Your task to perform on an android device: Find coffee shops on Maps Image 0: 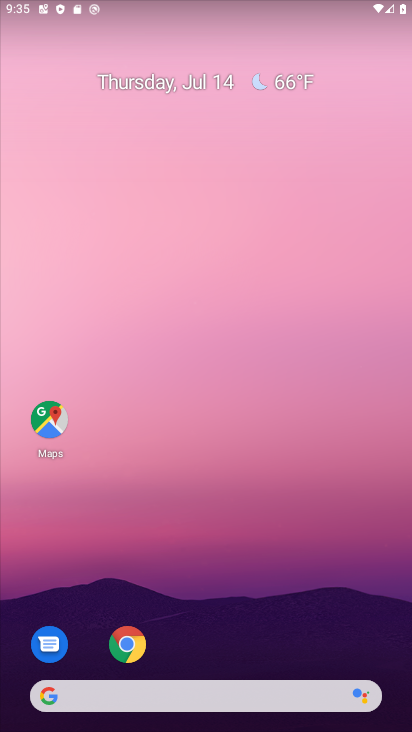
Step 0: drag from (273, 580) to (272, 244)
Your task to perform on an android device: Find coffee shops on Maps Image 1: 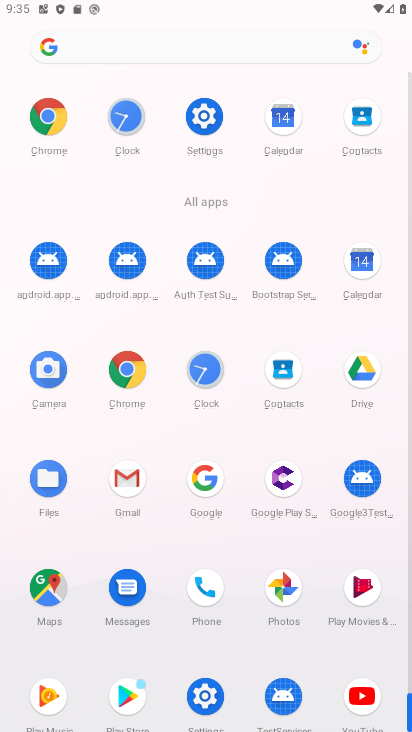
Step 1: click (56, 576)
Your task to perform on an android device: Find coffee shops on Maps Image 2: 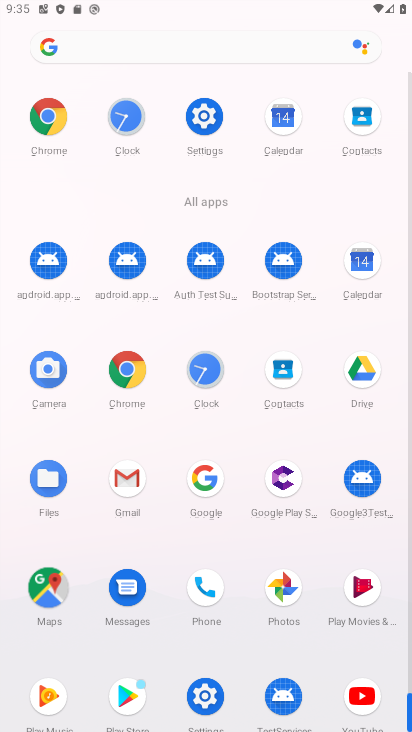
Step 2: click (52, 581)
Your task to perform on an android device: Find coffee shops on Maps Image 3: 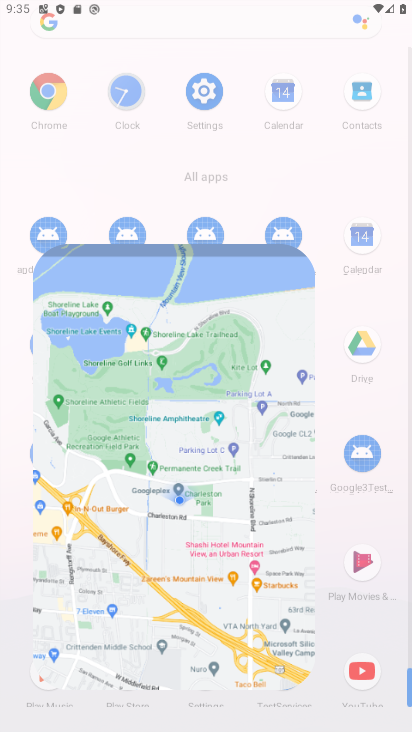
Step 3: click (51, 583)
Your task to perform on an android device: Find coffee shops on Maps Image 4: 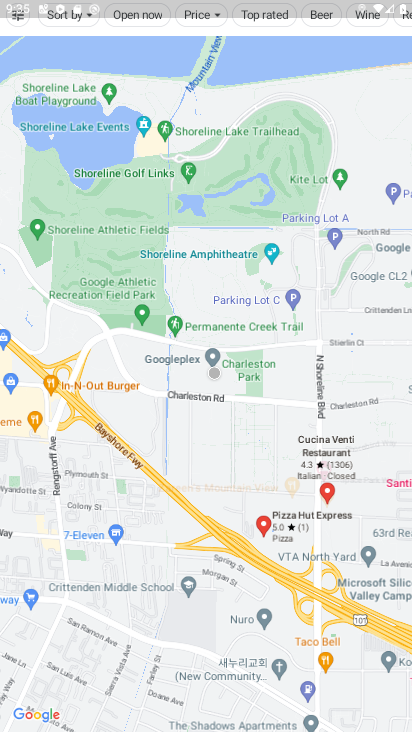
Step 4: click (131, 86)
Your task to perform on an android device: Find coffee shops on Maps Image 5: 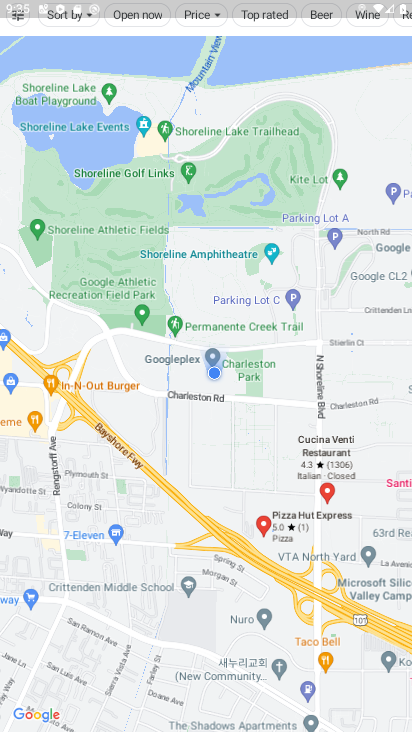
Step 5: click (103, 85)
Your task to perform on an android device: Find coffee shops on Maps Image 6: 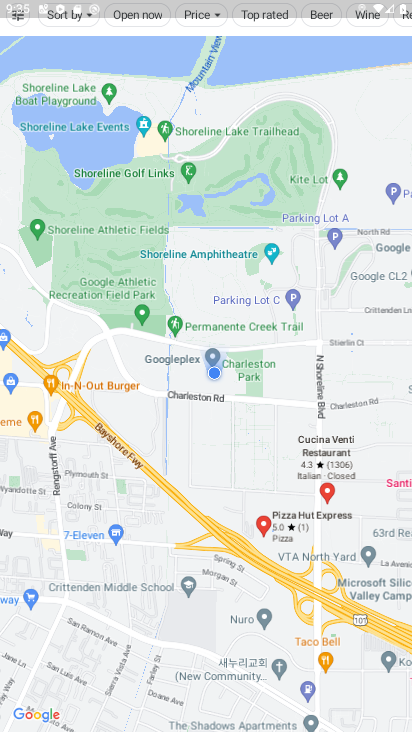
Step 6: click (107, 87)
Your task to perform on an android device: Find coffee shops on Maps Image 7: 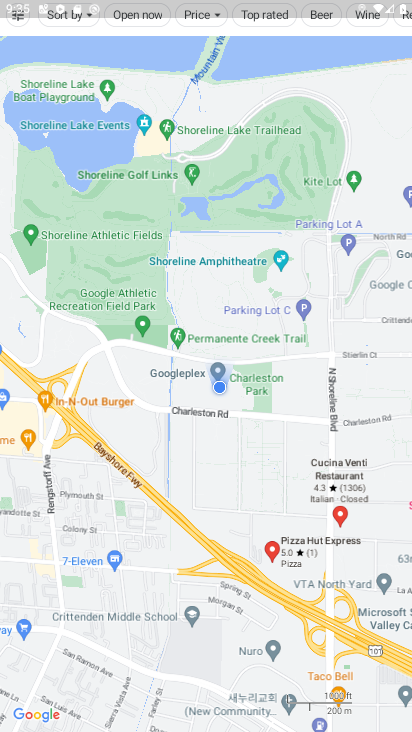
Step 7: click (133, 67)
Your task to perform on an android device: Find coffee shops on Maps Image 8: 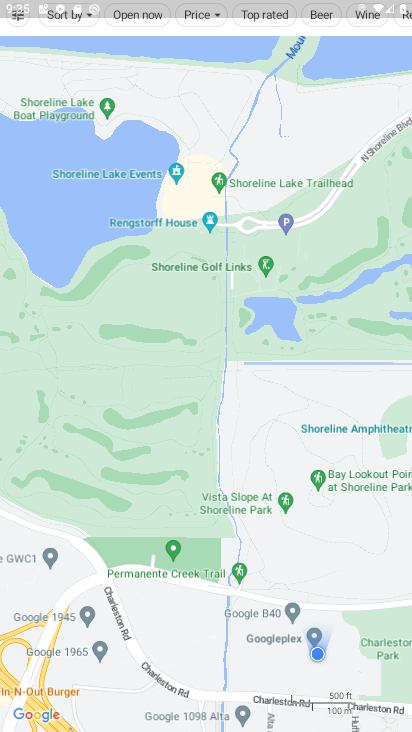
Step 8: click (139, 76)
Your task to perform on an android device: Find coffee shops on Maps Image 9: 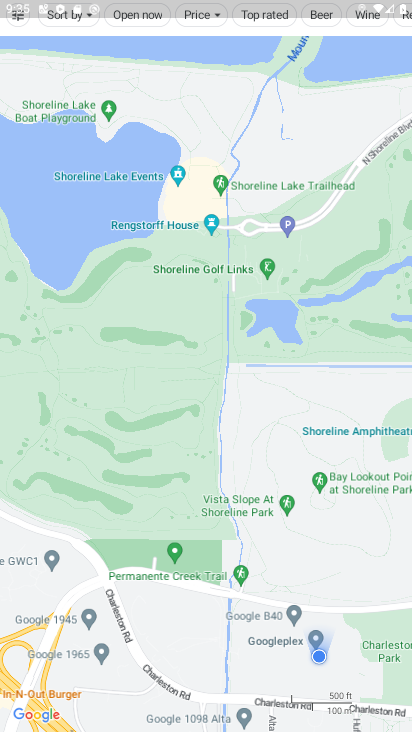
Step 9: click (139, 76)
Your task to perform on an android device: Find coffee shops on Maps Image 10: 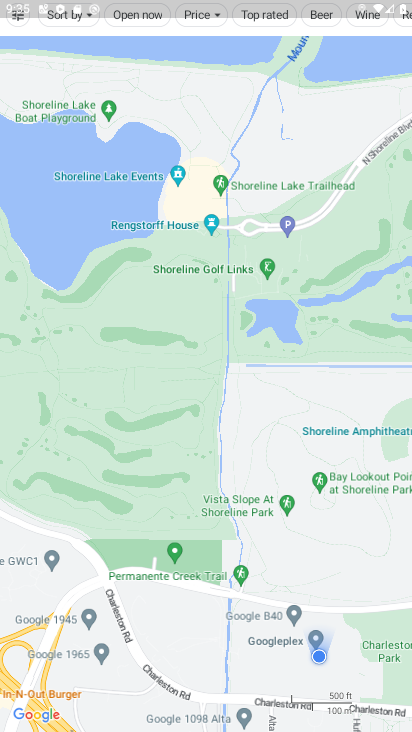
Step 10: click (139, 76)
Your task to perform on an android device: Find coffee shops on Maps Image 11: 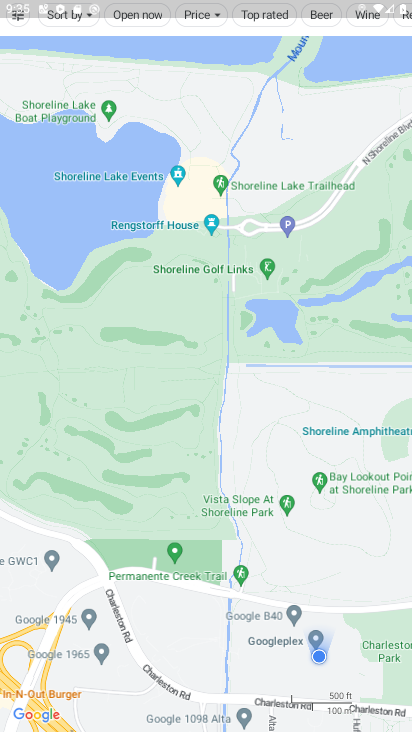
Step 11: click (140, 74)
Your task to perform on an android device: Find coffee shops on Maps Image 12: 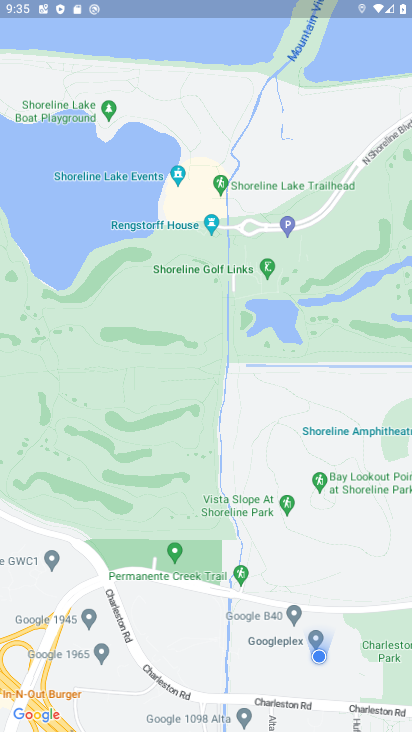
Step 12: click (110, 27)
Your task to perform on an android device: Find coffee shops on Maps Image 13: 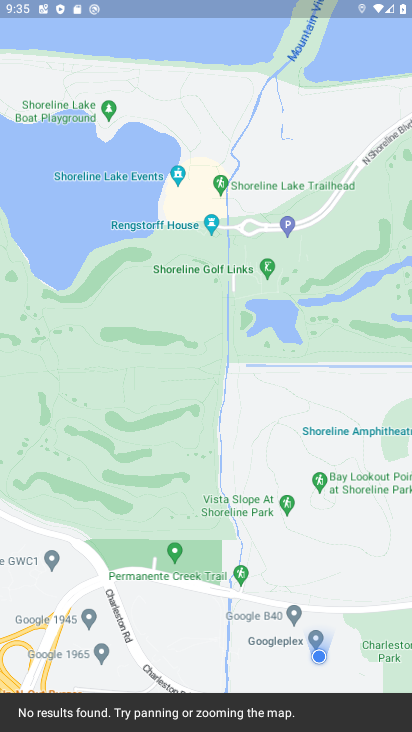
Step 13: click (110, 26)
Your task to perform on an android device: Find coffee shops on Maps Image 14: 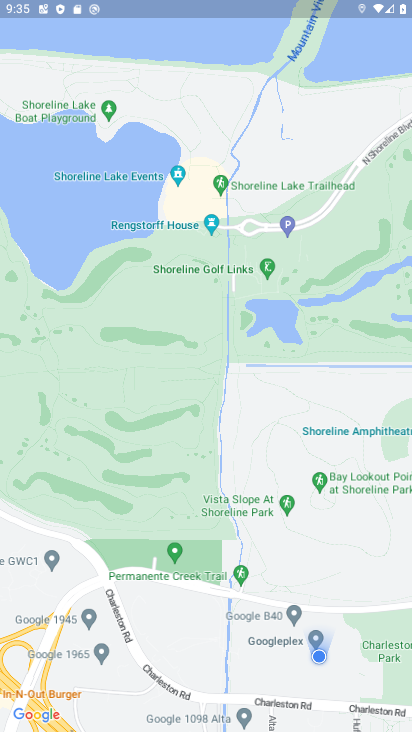
Step 14: click (143, 91)
Your task to perform on an android device: Find coffee shops on Maps Image 15: 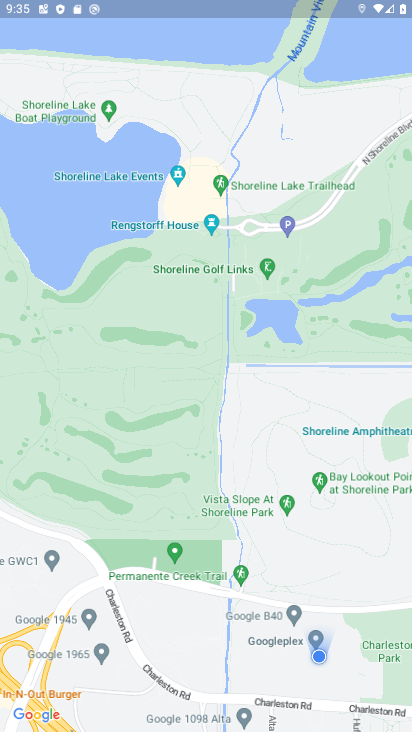
Step 15: click (144, 90)
Your task to perform on an android device: Find coffee shops on Maps Image 16: 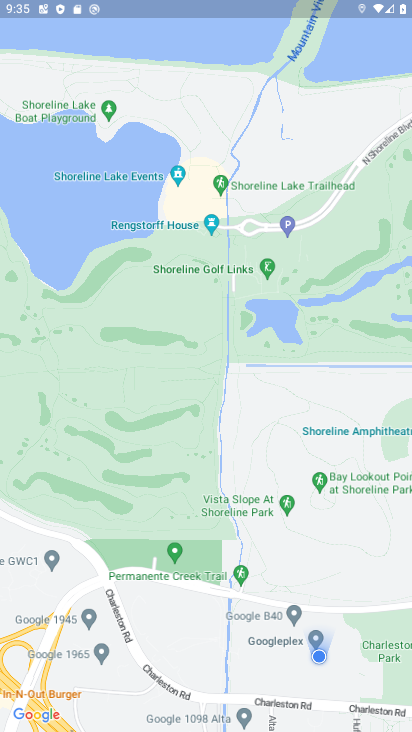
Step 16: click (141, 86)
Your task to perform on an android device: Find coffee shops on Maps Image 17: 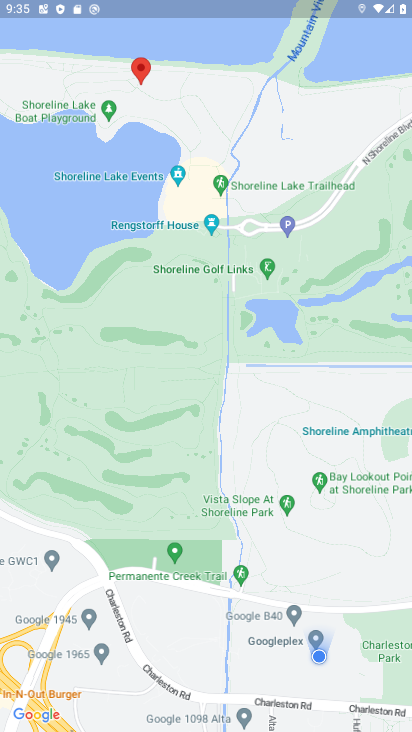
Step 17: click (157, 149)
Your task to perform on an android device: Find coffee shops on Maps Image 18: 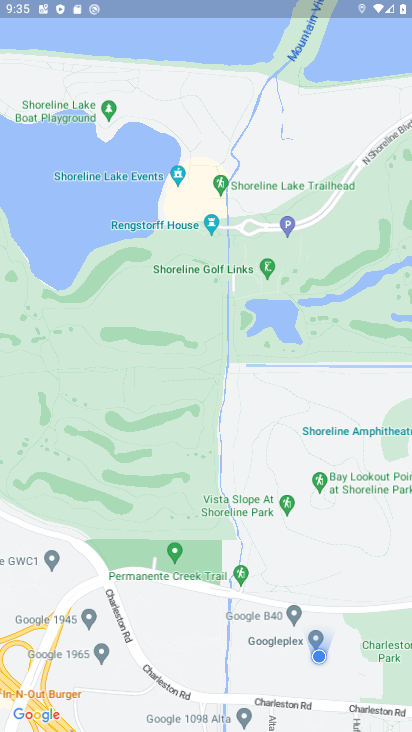
Step 18: click (136, 80)
Your task to perform on an android device: Find coffee shops on Maps Image 19: 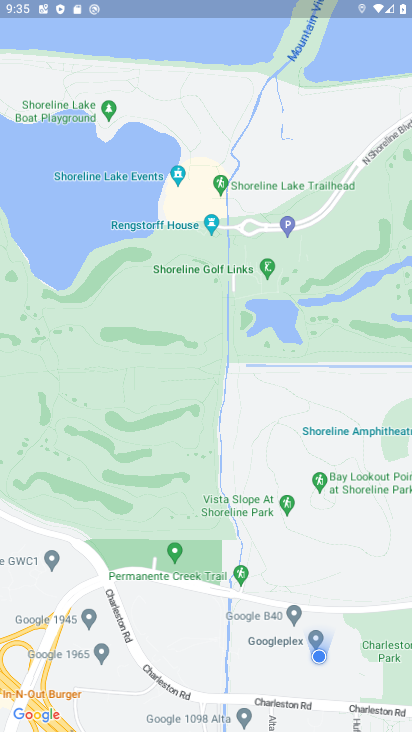
Step 19: drag from (142, 60) to (172, 394)
Your task to perform on an android device: Find coffee shops on Maps Image 20: 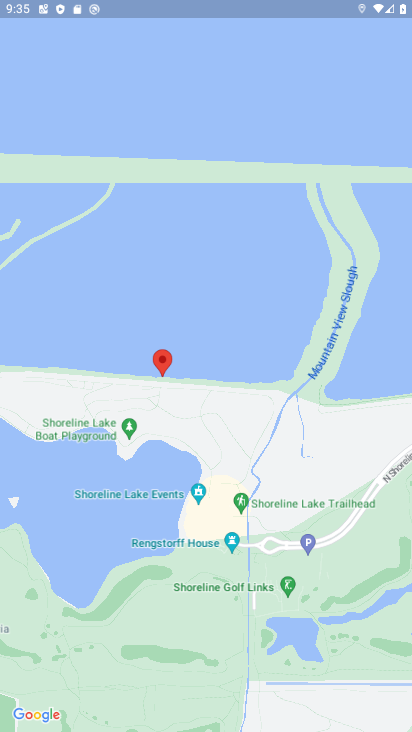
Step 20: click (141, 154)
Your task to perform on an android device: Find coffee shops on Maps Image 21: 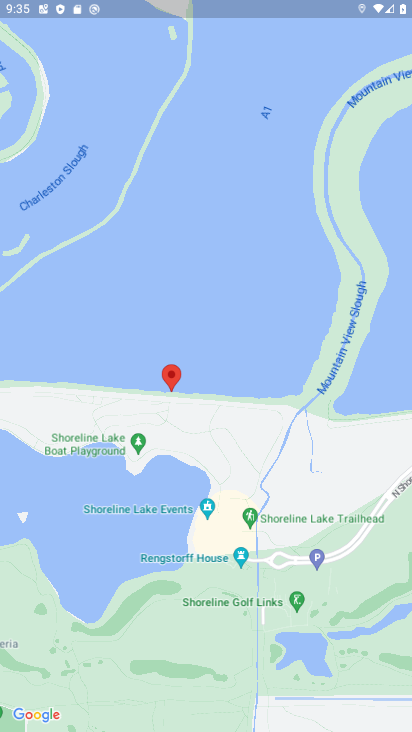
Step 21: click (147, 143)
Your task to perform on an android device: Find coffee shops on Maps Image 22: 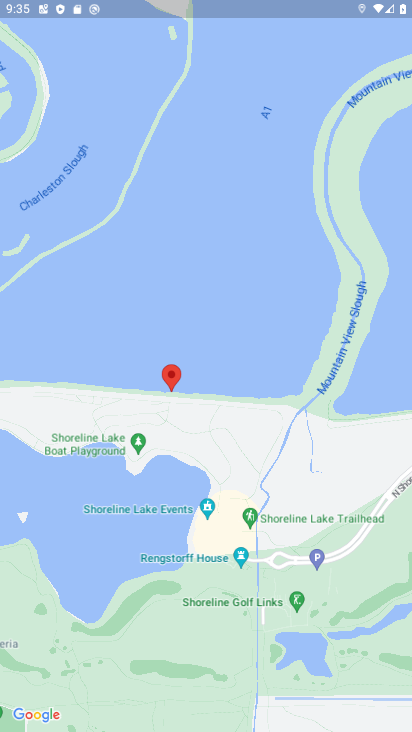
Step 22: click (144, 149)
Your task to perform on an android device: Find coffee shops on Maps Image 23: 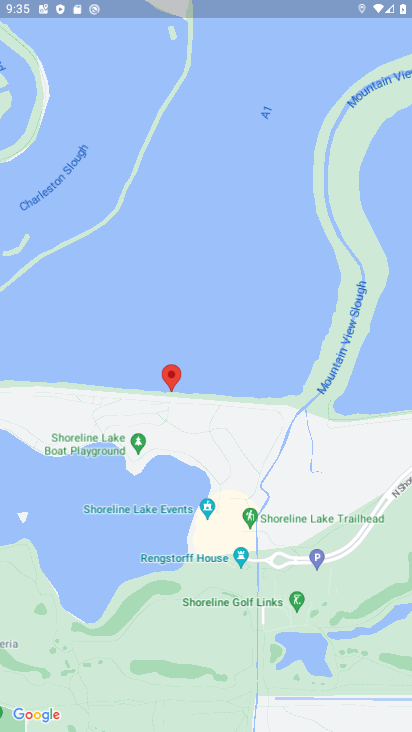
Step 23: click (161, 218)
Your task to perform on an android device: Find coffee shops on Maps Image 24: 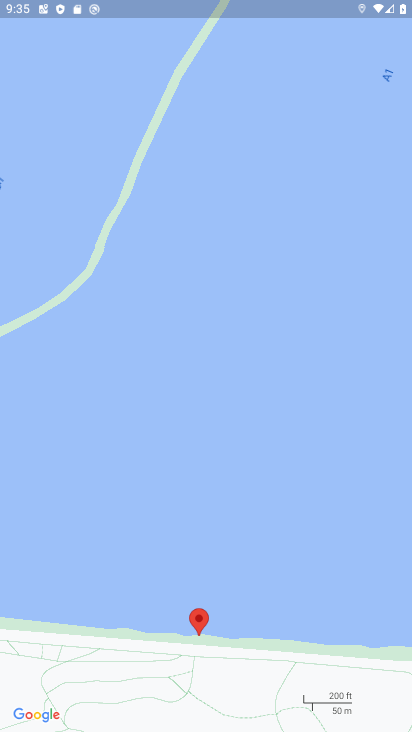
Step 24: click (138, 202)
Your task to perform on an android device: Find coffee shops on Maps Image 25: 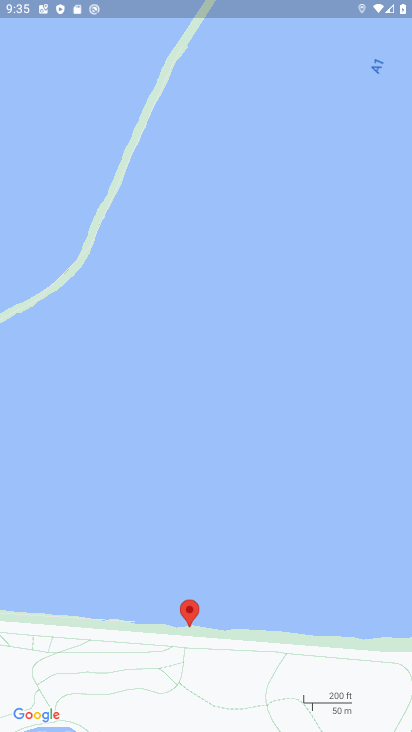
Step 25: click (140, 203)
Your task to perform on an android device: Find coffee shops on Maps Image 26: 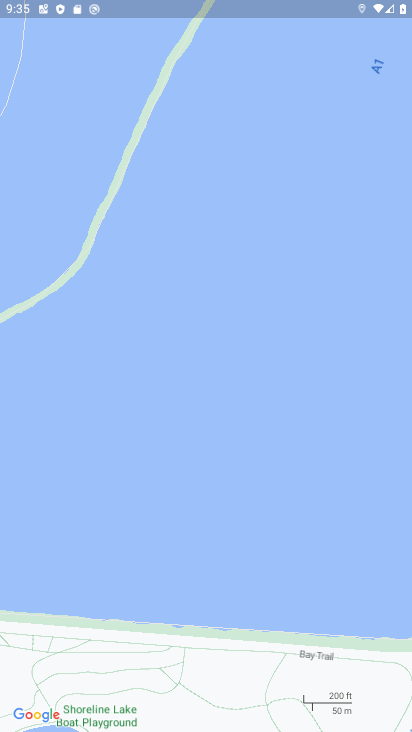
Step 26: click (142, 206)
Your task to perform on an android device: Find coffee shops on Maps Image 27: 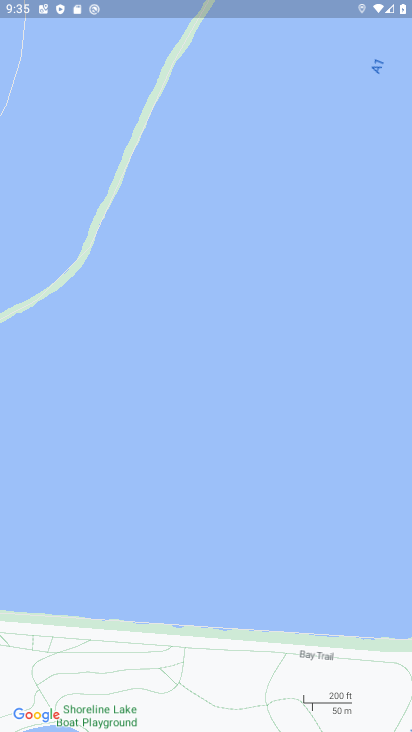
Step 27: click (132, 188)
Your task to perform on an android device: Find coffee shops on Maps Image 28: 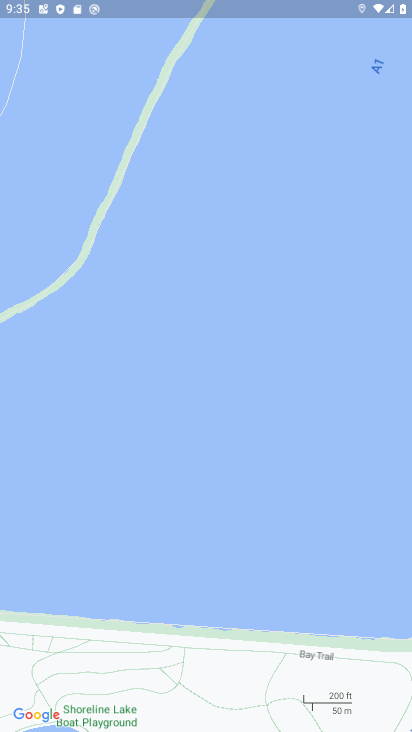
Step 28: click (128, 180)
Your task to perform on an android device: Find coffee shops on Maps Image 29: 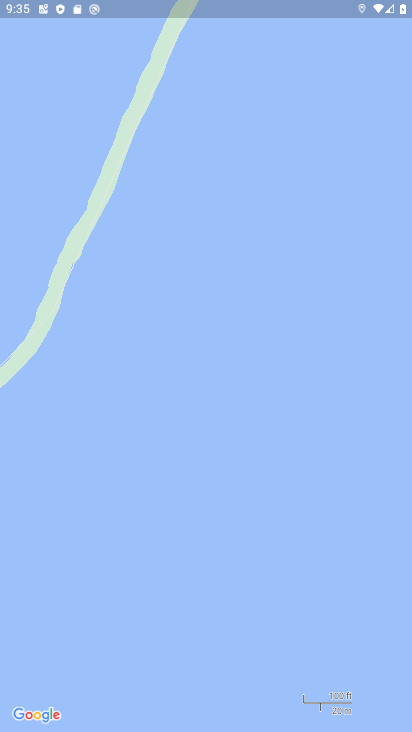
Step 29: task complete